Your task to perform on an android device: Search for Mexican restaurants on Maps Image 0: 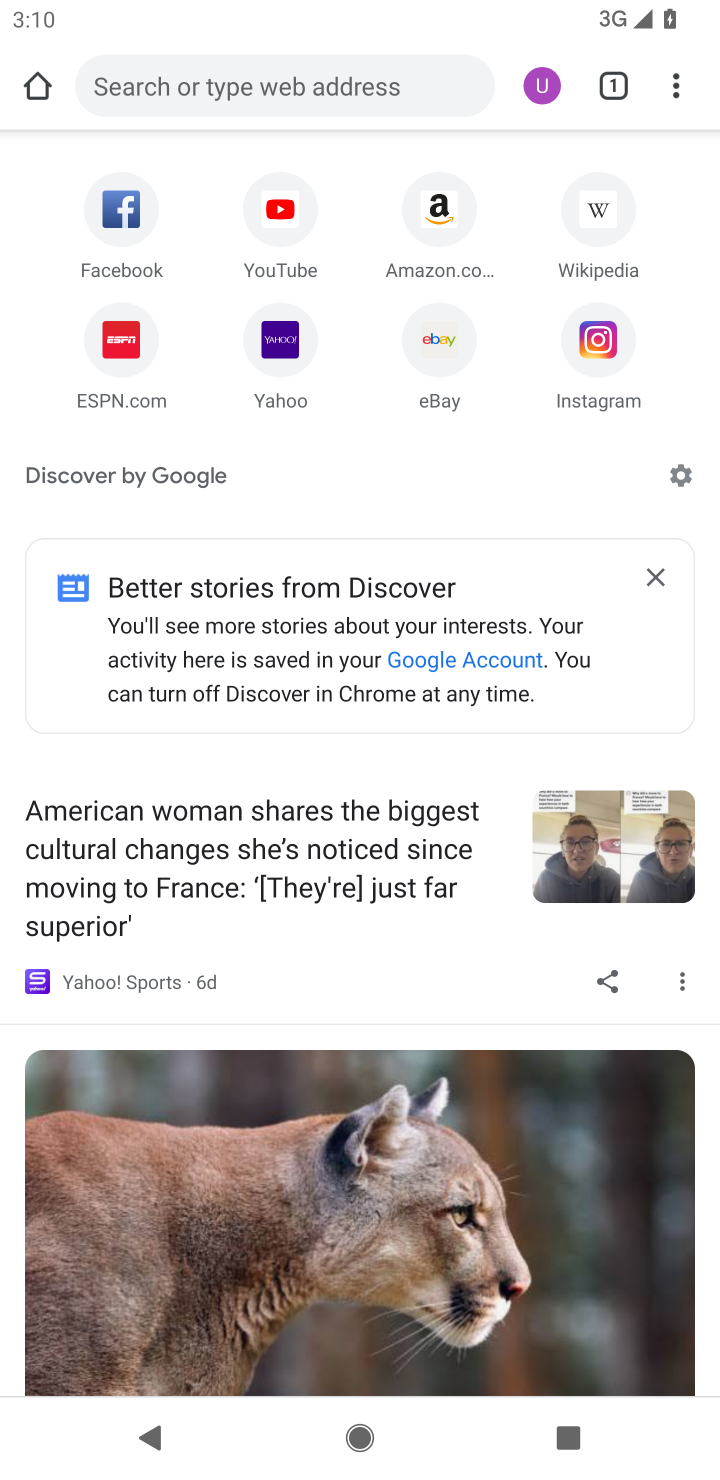
Step 0: press home button
Your task to perform on an android device: Search for Mexican restaurants on Maps Image 1: 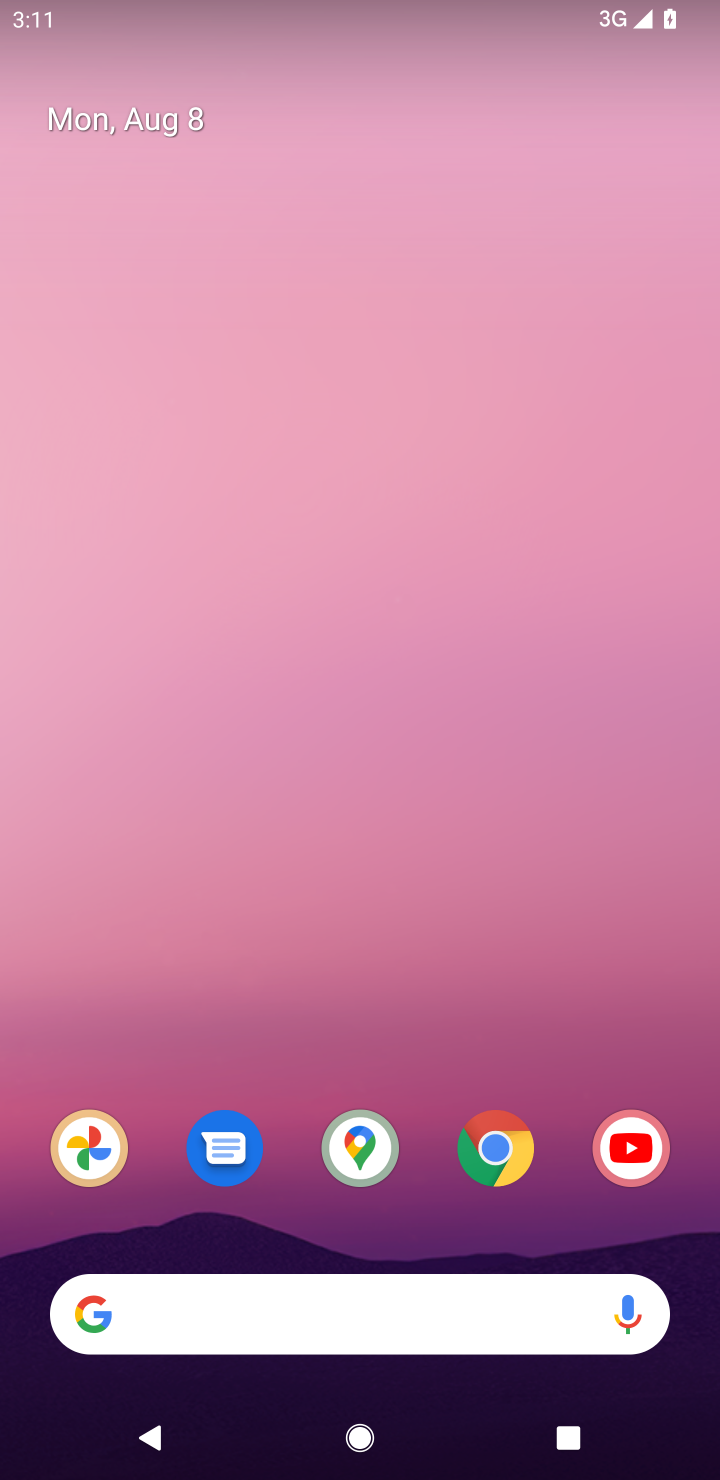
Step 1: click (372, 1142)
Your task to perform on an android device: Search for Mexican restaurants on Maps Image 2: 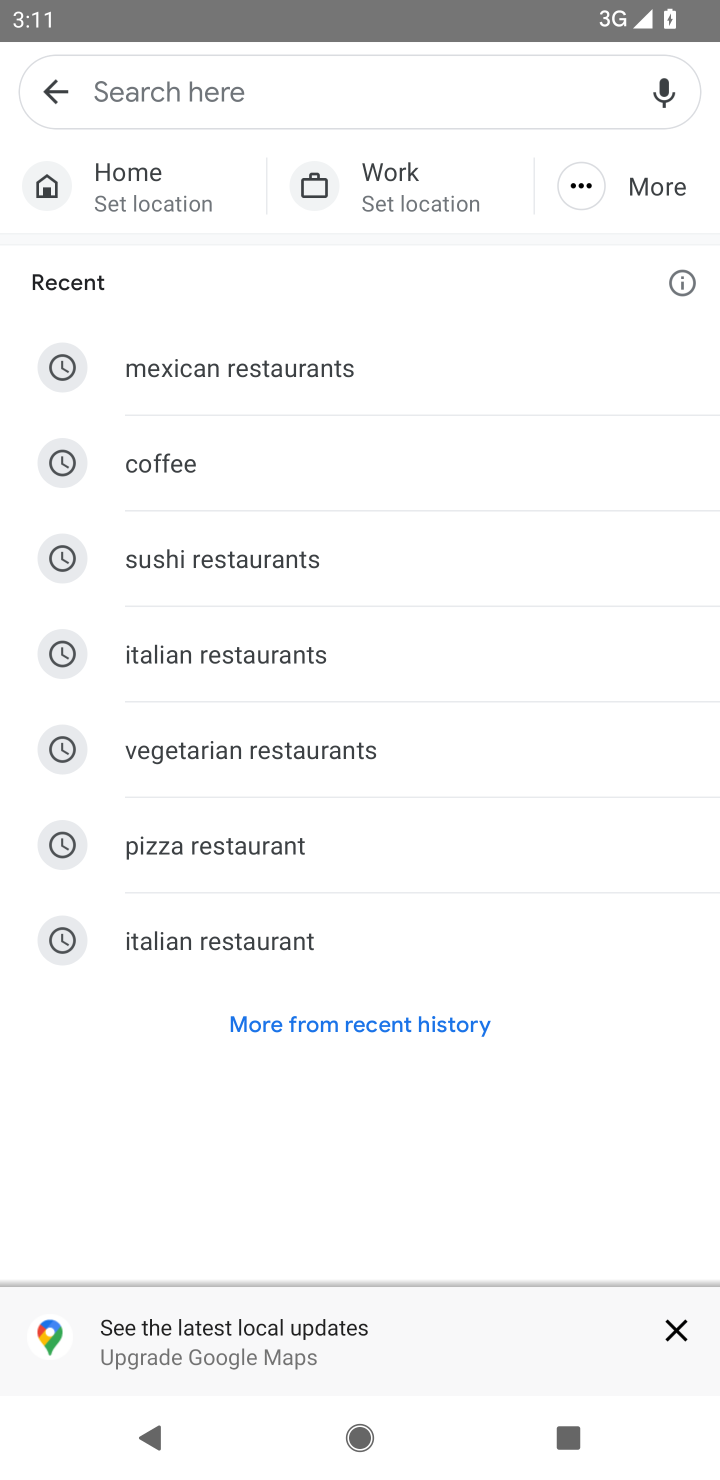
Step 2: click (444, 85)
Your task to perform on an android device: Search for Mexican restaurants on Maps Image 3: 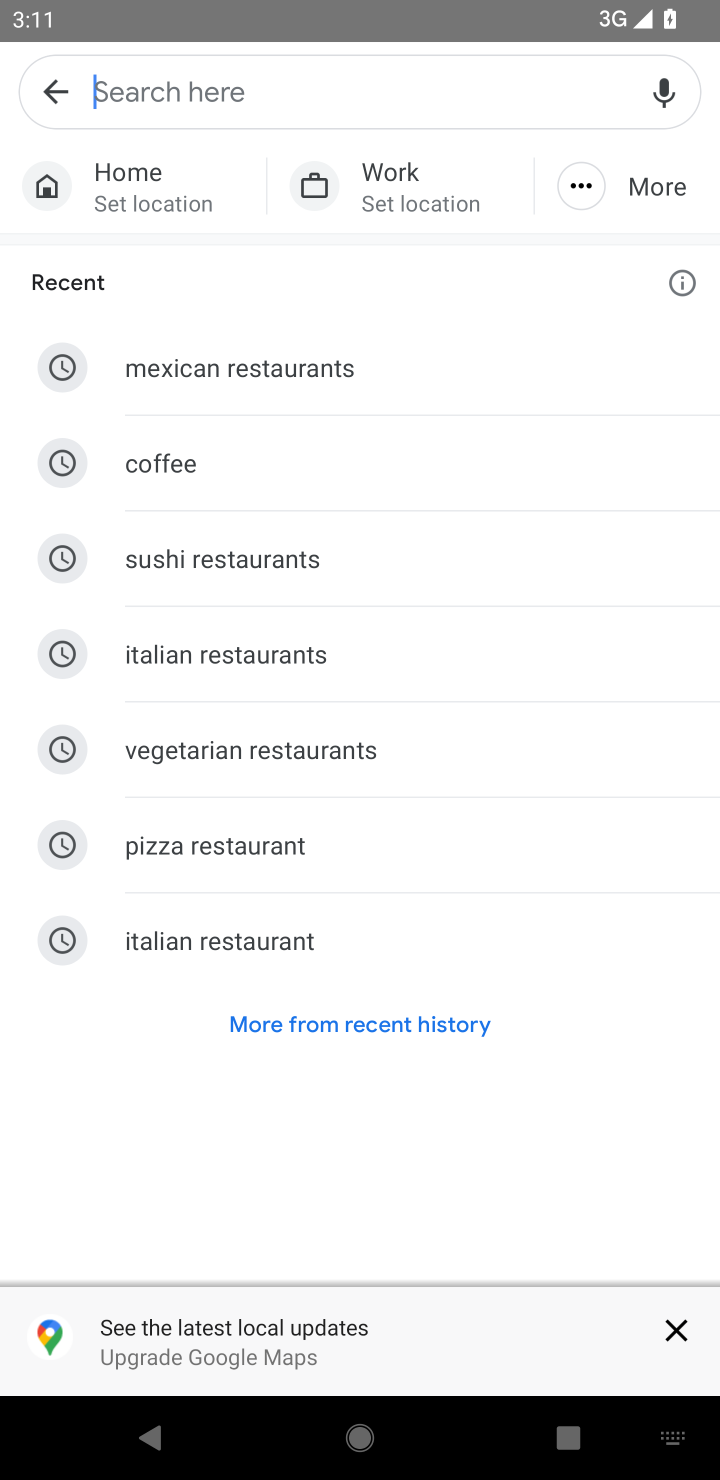
Step 3: type "mexican restaurants"
Your task to perform on an android device: Search for Mexican restaurants on Maps Image 4: 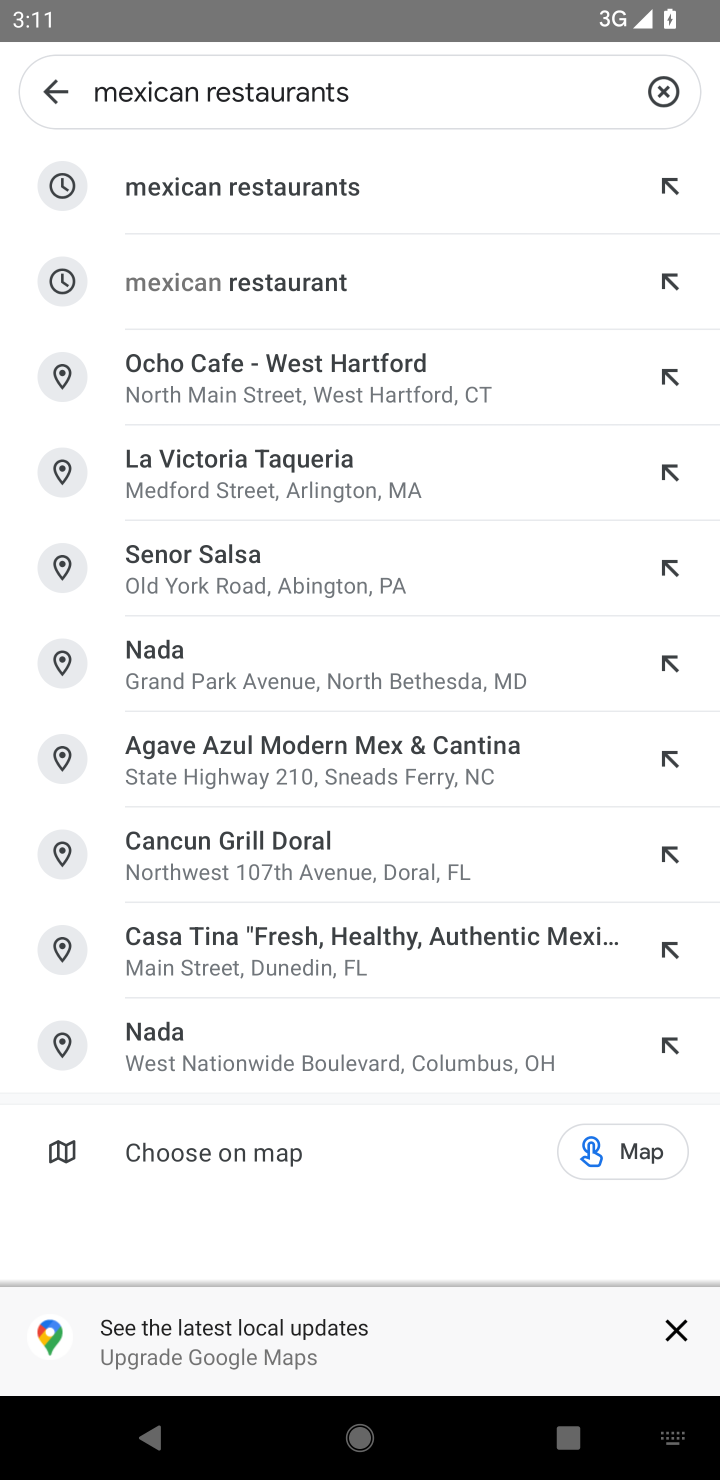
Step 4: click (437, 189)
Your task to perform on an android device: Search for Mexican restaurants on Maps Image 5: 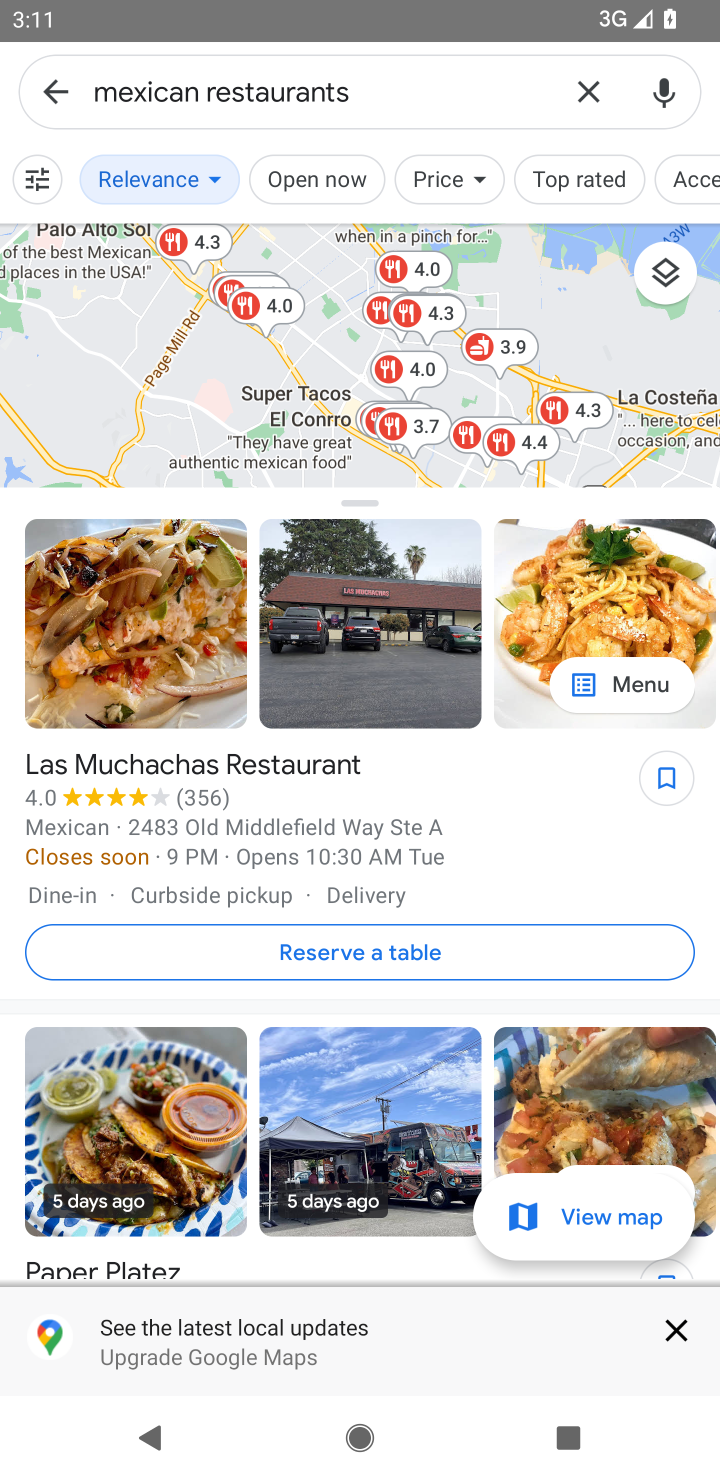
Step 5: task complete